Your task to perform on an android device: turn on data saver in the chrome app Image 0: 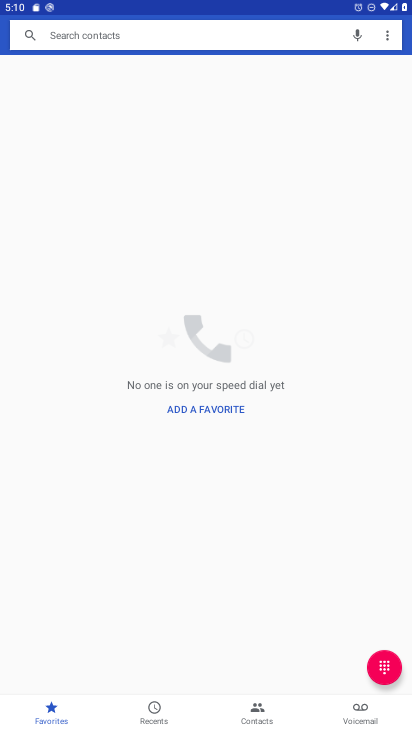
Step 0: press home button
Your task to perform on an android device: turn on data saver in the chrome app Image 1: 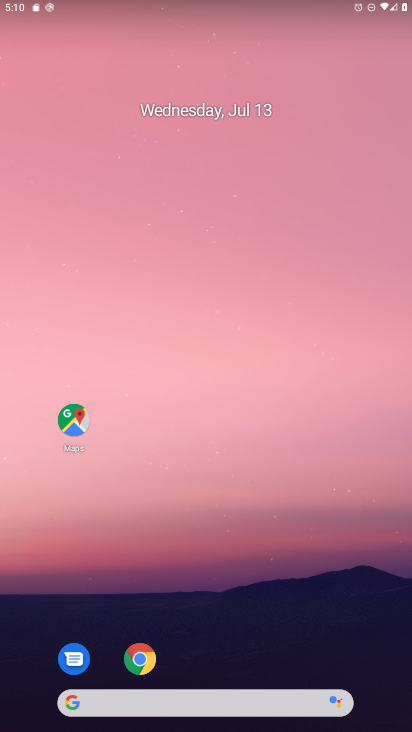
Step 1: drag from (320, 566) to (282, 51)
Your task to perform on an android device: turn on data saver in the chrome app Image 2: 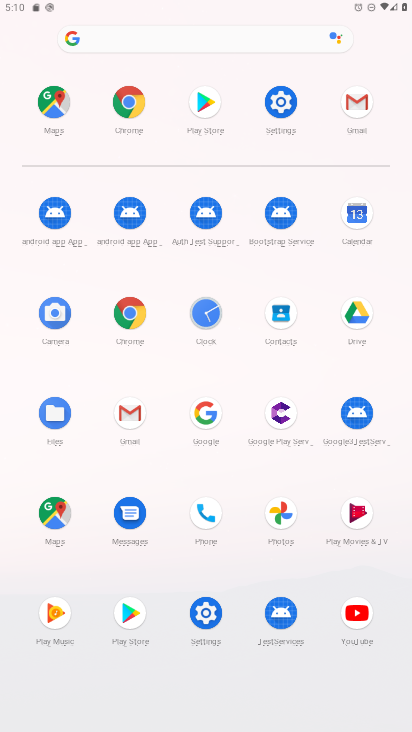
Step 2: click (126, 311)
Your task to perform on an android device: turn on data saver in the chrome app Image 3: 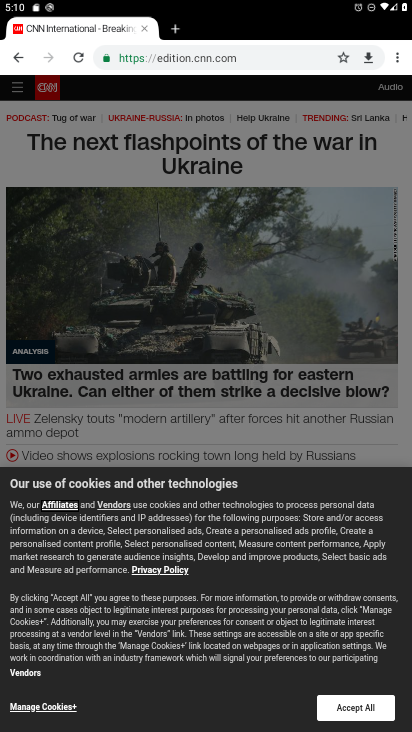
Step 3: drag from (397, 54) to (273, 356)
Your task to perform on an android device: turn on data saver in the chrome app Image 4: 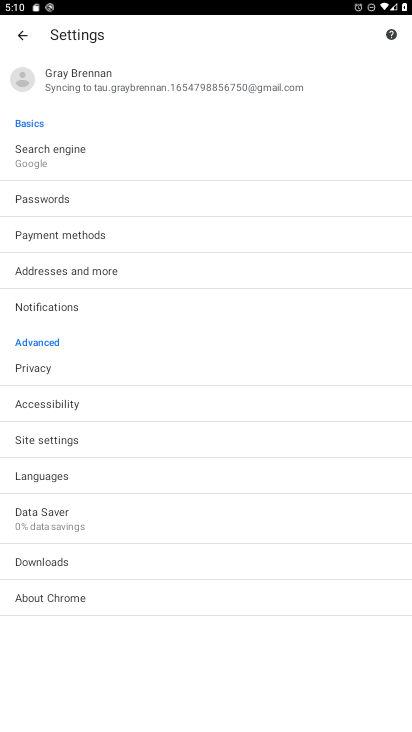
Step 4: click (39, 532)
Your task to perform on an android device: turn on data saver in the chrome app Image 5: 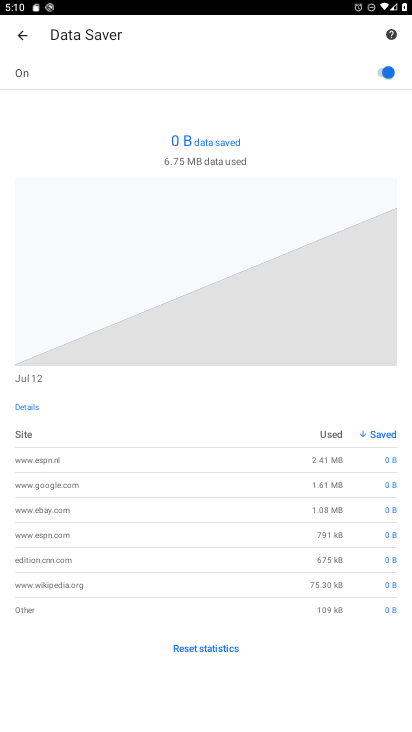
Step 5: task complete